Your task to perform on an android device: turn on airplane mode Image 0: 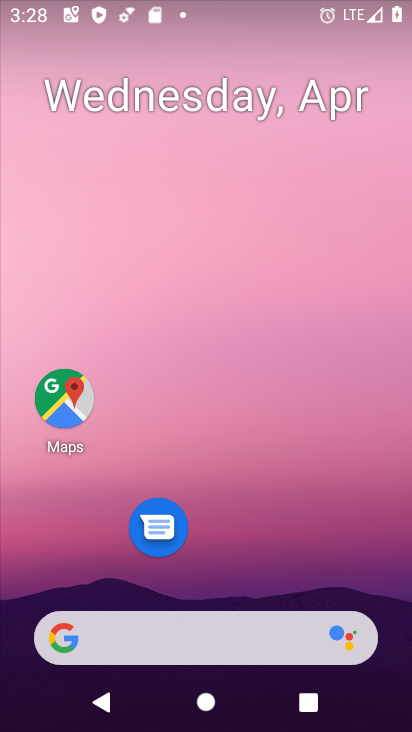
Step 0: drag from (212, 486) to (233, 21)
Your task to perform on an android device: turn on airplane mode Image 1: 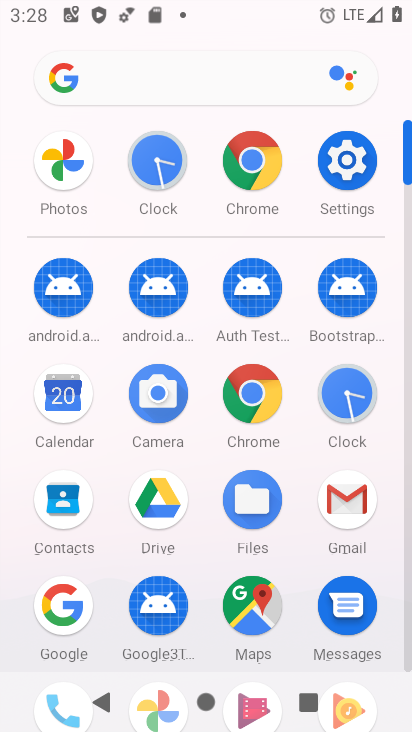
Step 1: click (316, 161)
Your task to perform on an android device: turn on airplane mode Image 2: 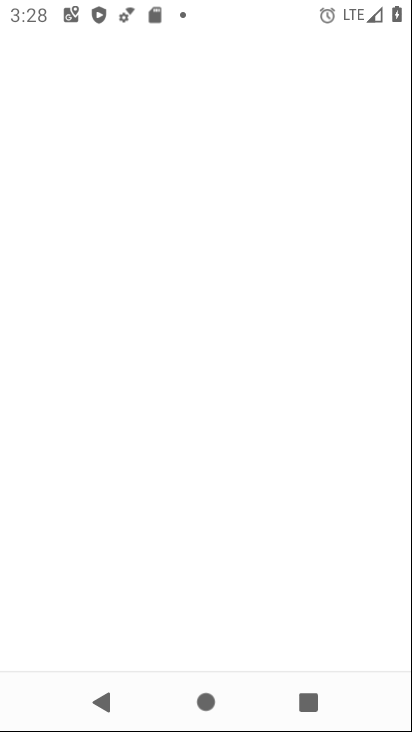
Step 2: drag from (296, 385) to (256, 173)
Your task to perform on an android device: turn on airplane mode Image 3: 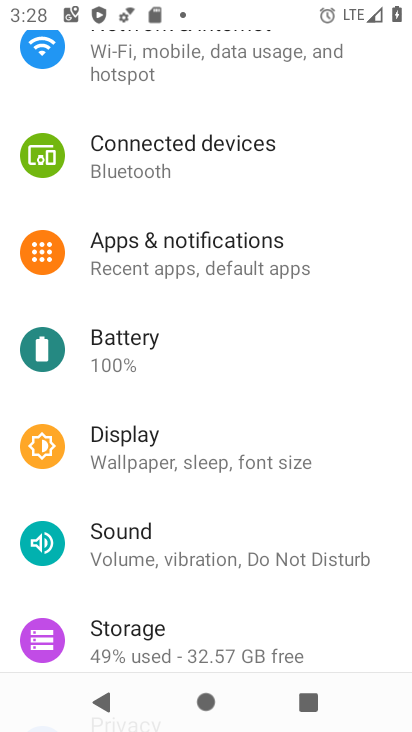
Step 3: click (195, 58)
Your task to perform on an android device: turn on airplane mode Image 4: 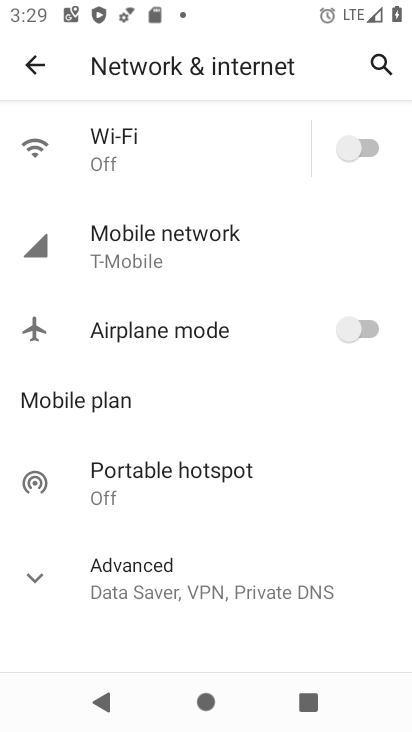
Step 4: click (348, 322)
Your task to perform on an android device: turn on airplane mode Image 5: 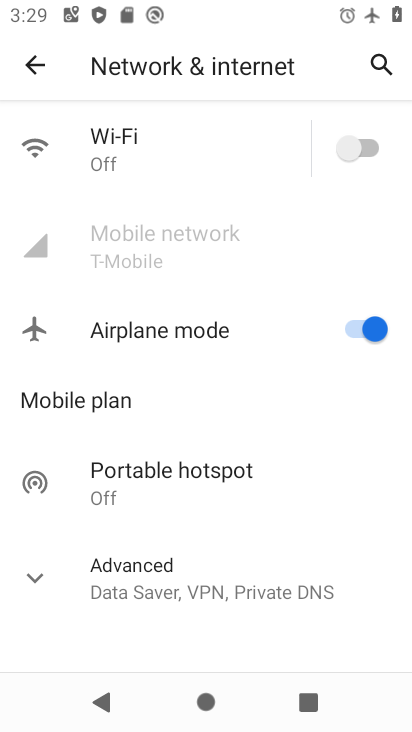
Step 5: task complete